Your task to perform on an android device: What is the recent news? Image 0: 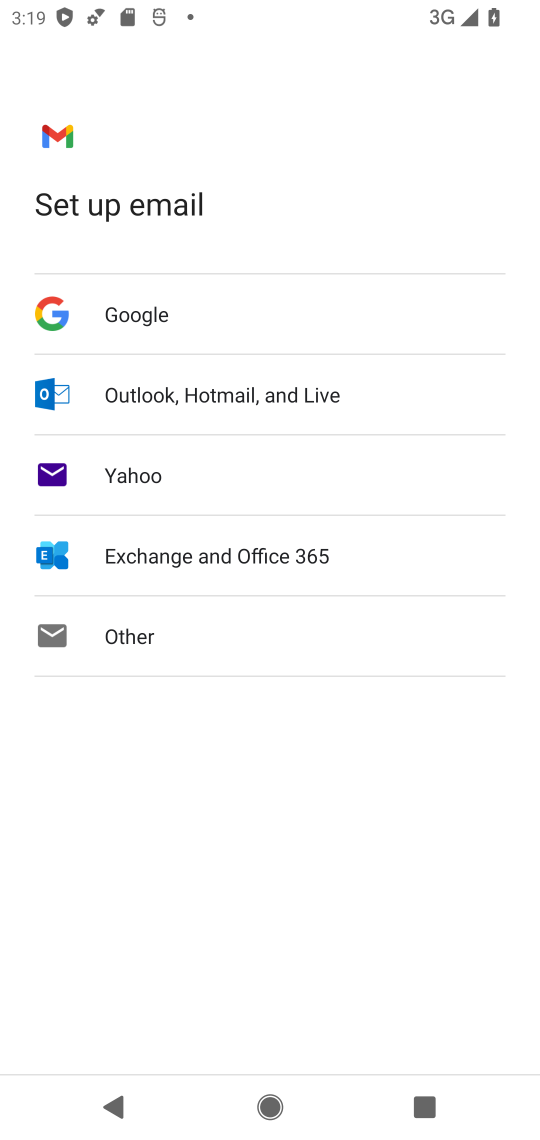
Step 0: press home button
Your task to perform on an android device: What is the recent news? Image 1: 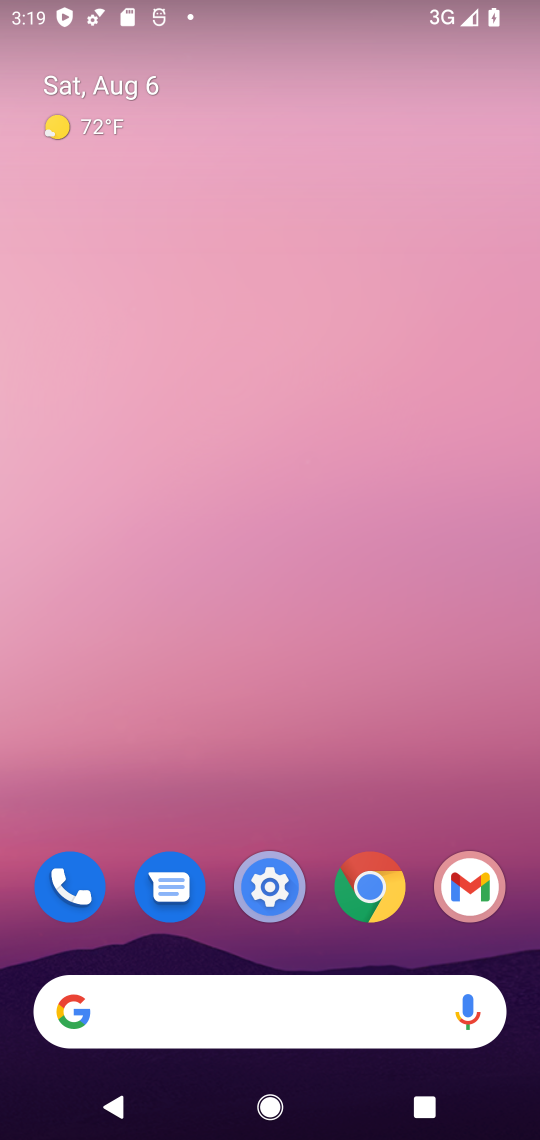
Step 1: task complete